Your task to perform on an android device: change notifications settings Image 0: 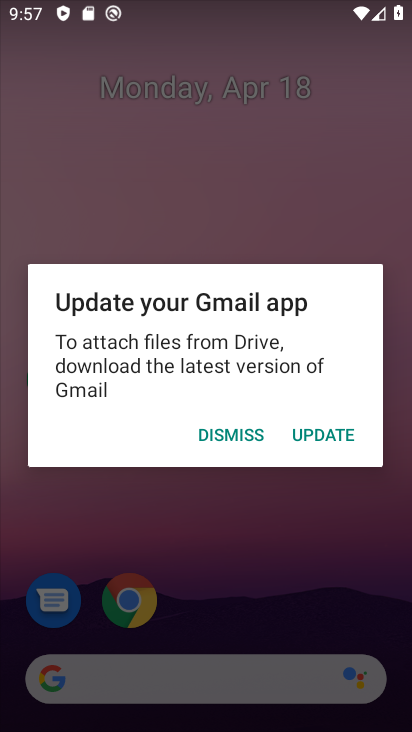
Step 0: press home button
Your task to perform on an android device: change notifications settings Image 1: 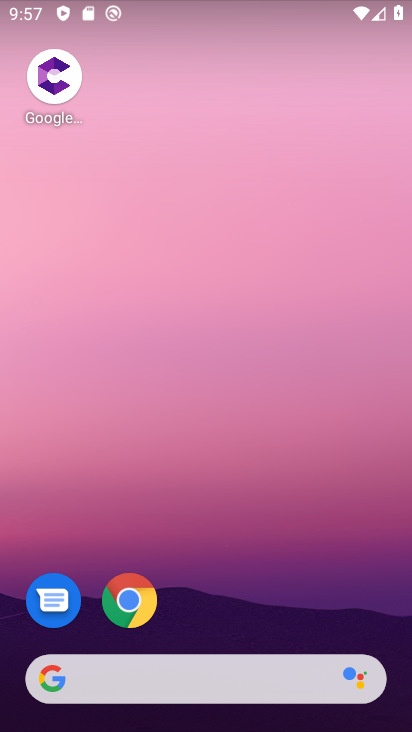
Step 1: drag from (228, 650) to (173, 57)
Your task to perform on an android device: change notifications settings Image 2: 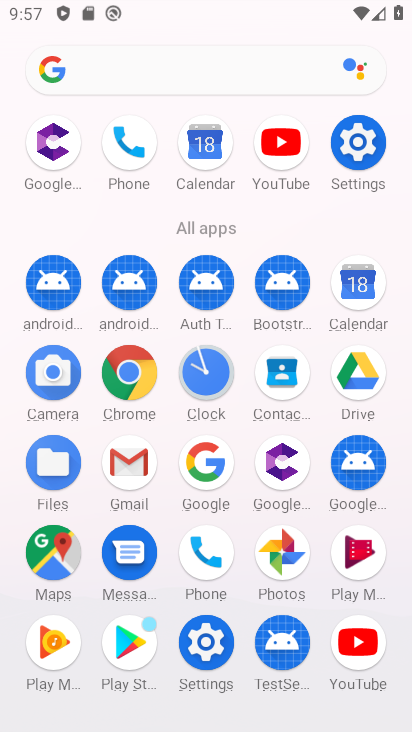
Step 2: click (342, 153)
Your task to perform on an android device: change notifications settings Image 3: 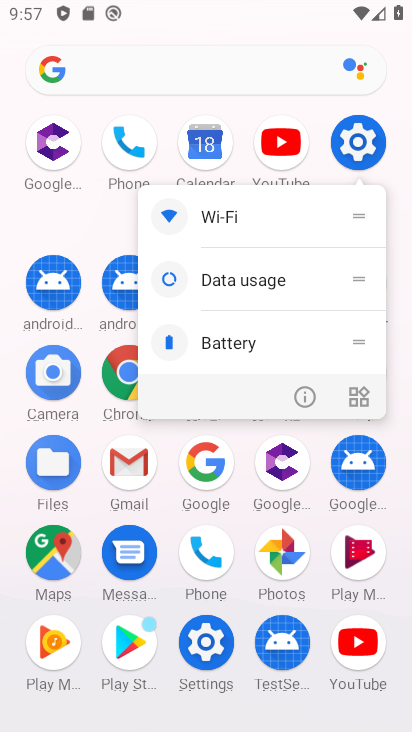
Step 3: click (359, 150)
Your task to perform on an android device: change notifications settings Image 4: 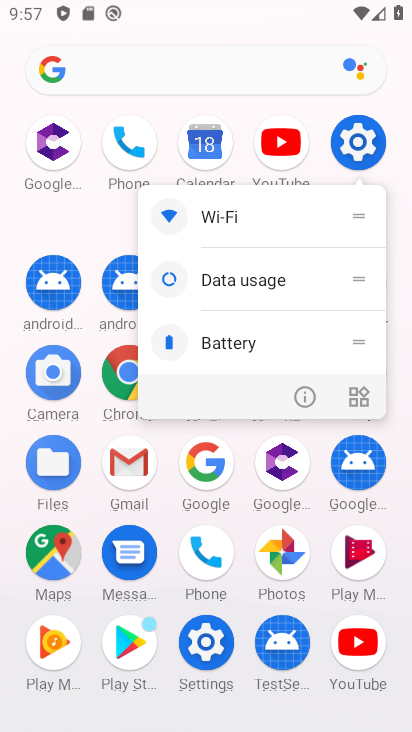
Step 4: click (356, 151)
Your task to perform on an android device: change notifications settings Image 5: 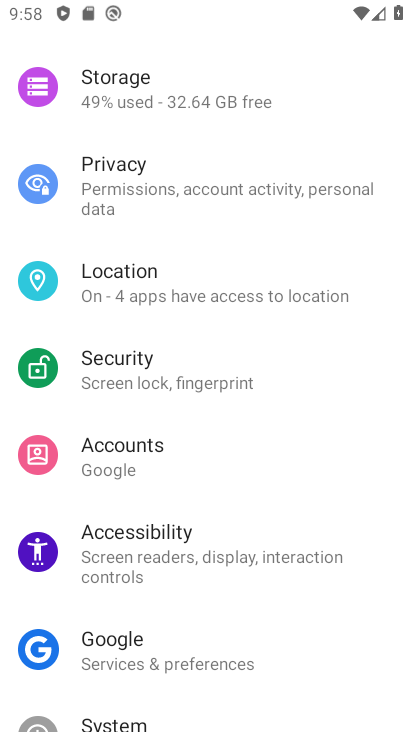
Step 5: drag from (218, 218) to (189, 562)
Your task to perform on an android device: change notifications settings Image 6: 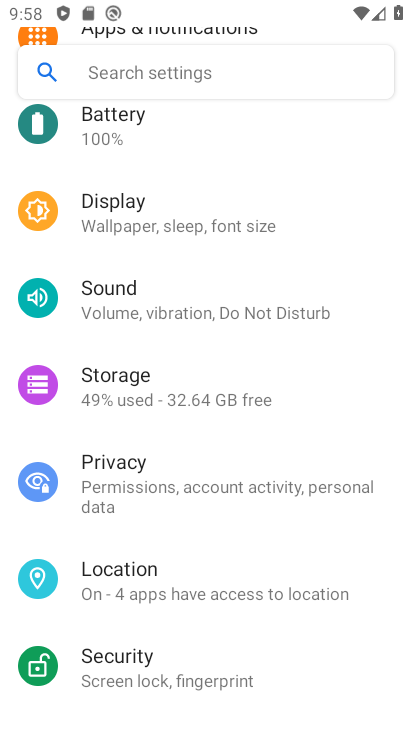
Step 6: drag from (275, 291) to (256, 561)
Your task to perform on an android device: change notifications settings Image 7: 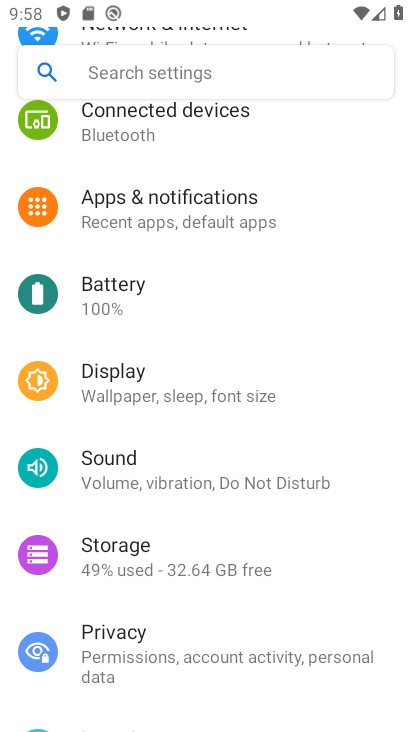
Step 7: click (175, 207)
Your task to perform on an android device: change notifications settings Image 8: 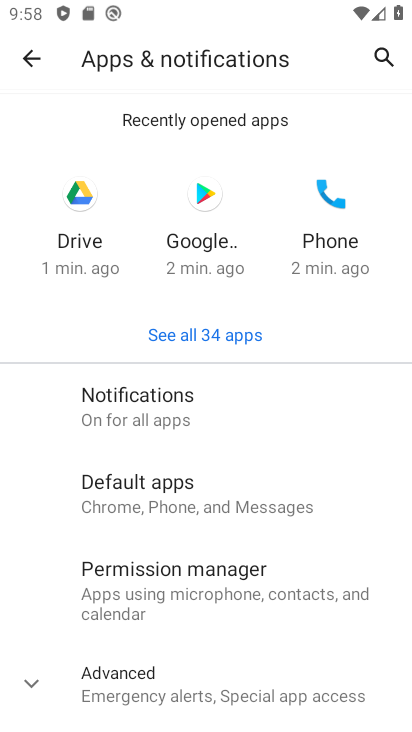
Step 8: click (145, 396)
Your task to perform on an android device: change notifications settings Image 9: 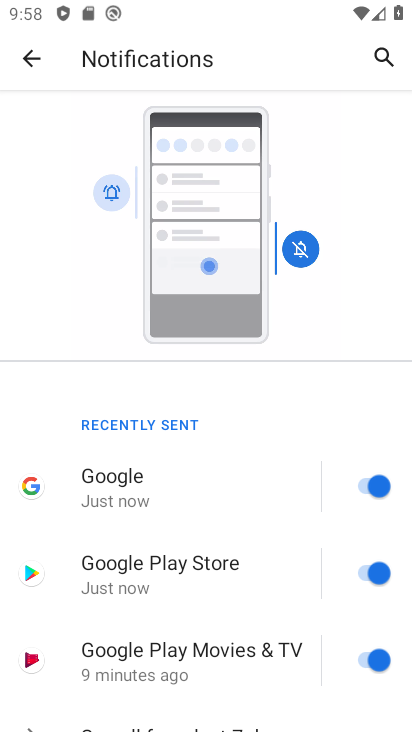
Step 9: drag from (189, 632) to (186, 232)
Your task to perform on an android device: change notifications settings Image 10: 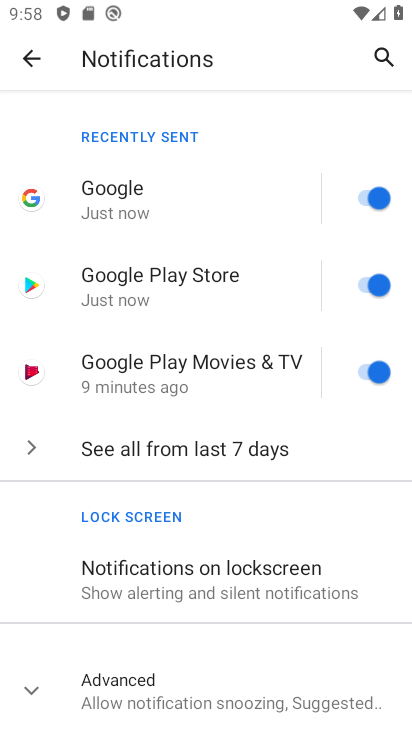
Step 10: click (197, 430)
Your task to perform on an android device: change notifications settings Image 11: 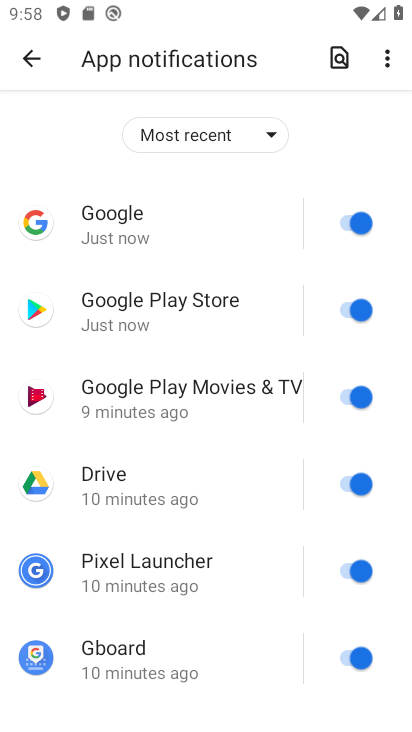
Step 11: click (208, 143)
Your task to perform on an android device: change notifications settings Image 12: 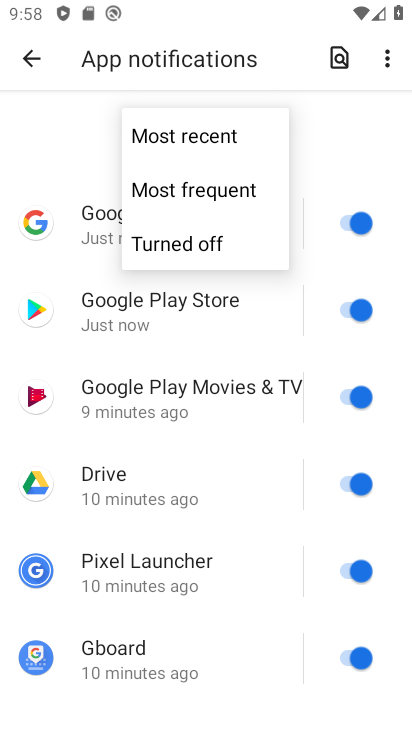
Step 12: click (205, 231)
Your task to perform on an android device: change notifications settings Image 13: 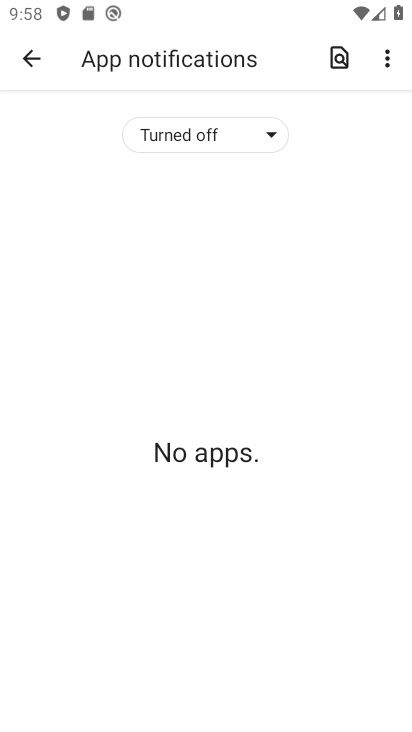
Step 13: task complete